Your task to perform on an android device: check storage Image 0: 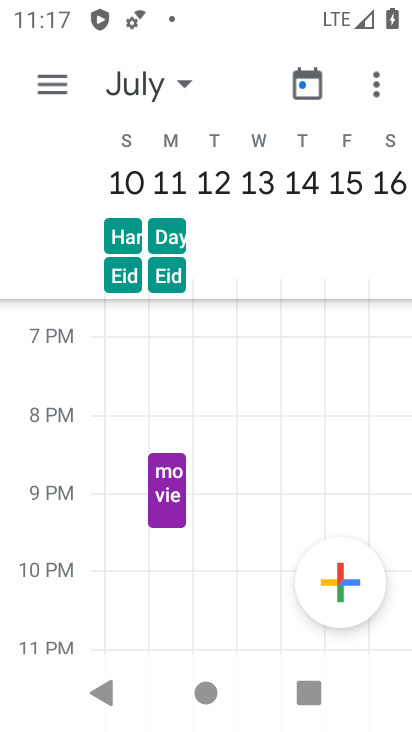
Step 0: press home button
Your task to perform on an android device: check storage Image 1: 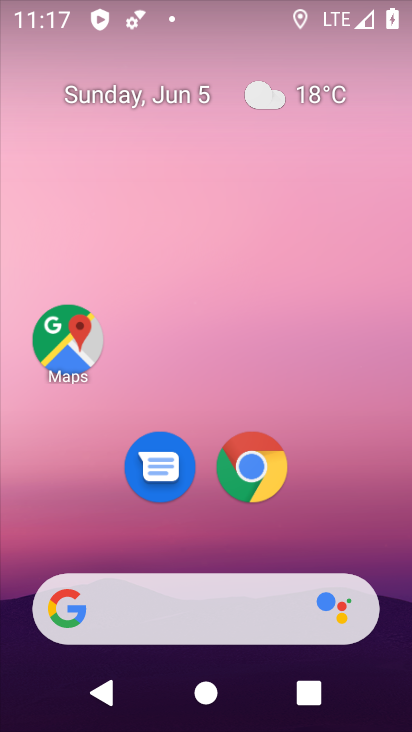
Step 1: drag from (183, 567) to (136, 109)
Your task to perform on an android device: check storage Image 2: 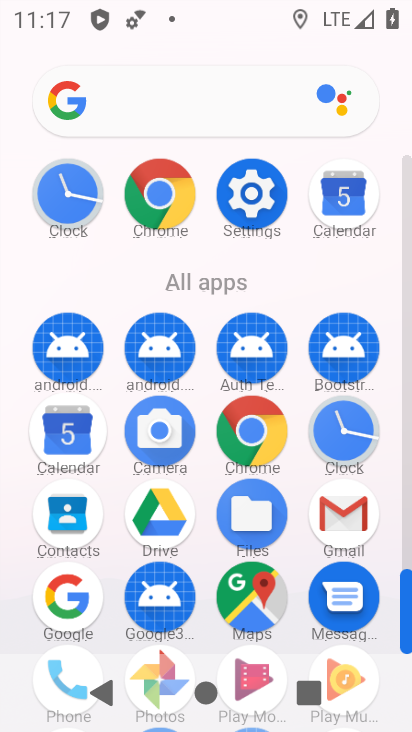
Step 2: click (239, 184)
Your task to perform on an android device: check storage Image 3: 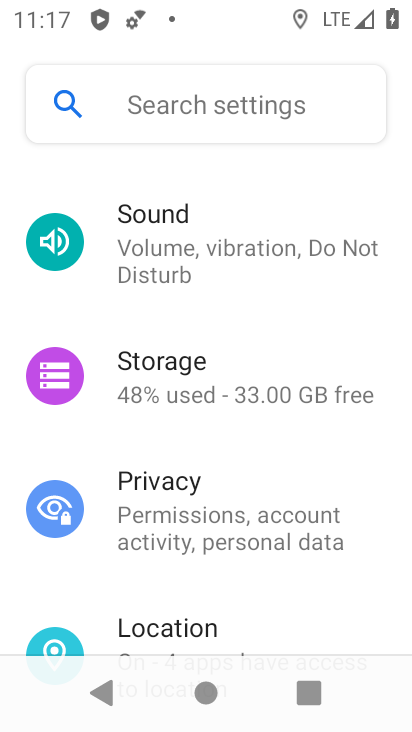
Step 3: click (143, 359)
Your task to perform on an android device: check storage Image 4: 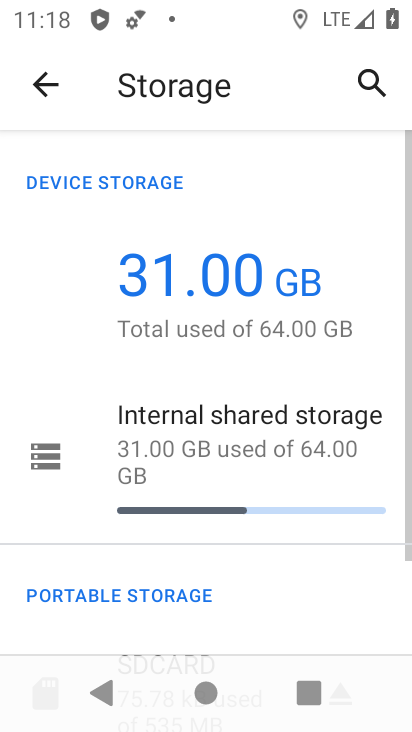
Step 4: task complete